Your task to perform on an android device: open the mobile data screen to see how much data has been used Image 0: 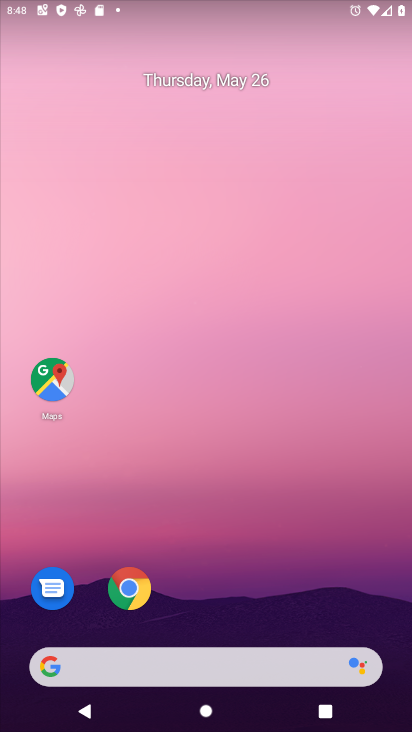
Step 0: drag from (357, 608) to (314, 70)
Your task to perform on an android device: open the mobile data screen to see how much data has been used Image 1: 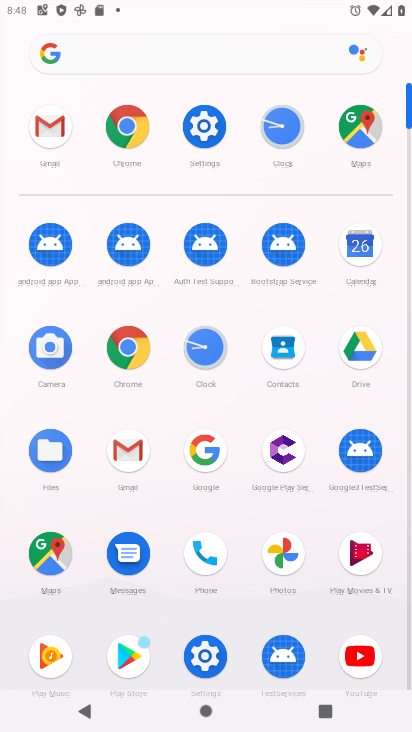
Step 1: click (208, 130)
Your task to perform on an android device: open the mobile data screen to see how much data has been used Image 2: 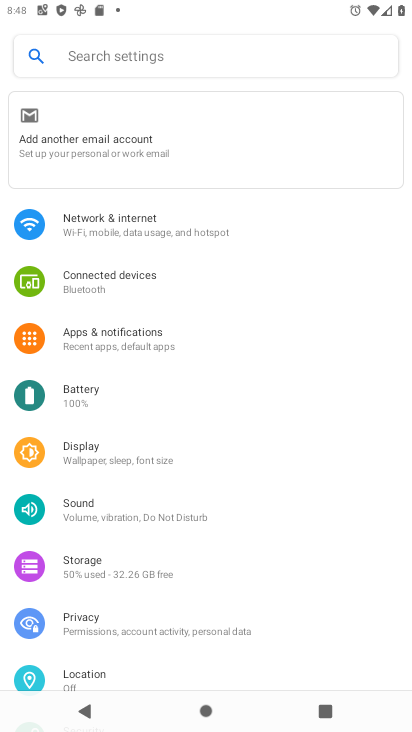
Step 2: click (139, 253)
Your task to perform on an android device: open the mobile data screen to see how much data has been used Image 3: 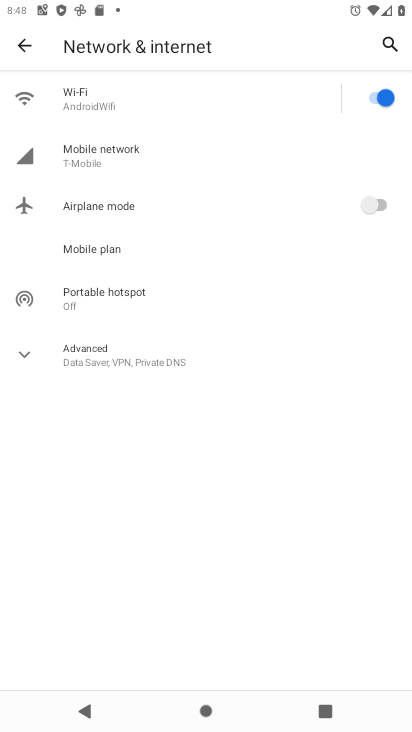
Step 3: click (150, 145)
Your task to perform on an android device: open the mobile data screen to see how much data has been used Image 4: 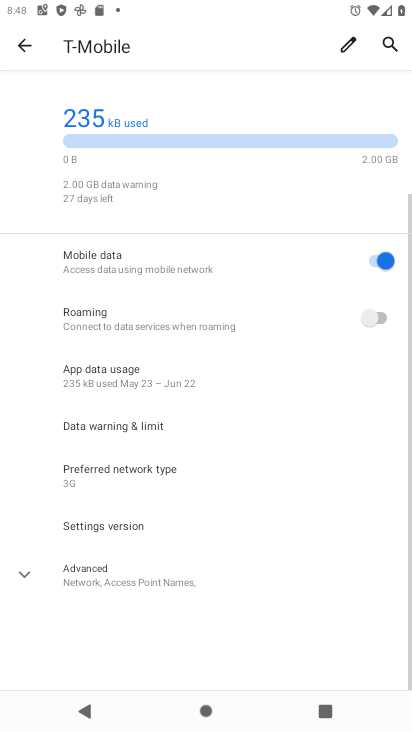
Step 4: click (154, 385)
Your task to perform on an android device: open the mobile data screen to see how much data has been used Image 5: 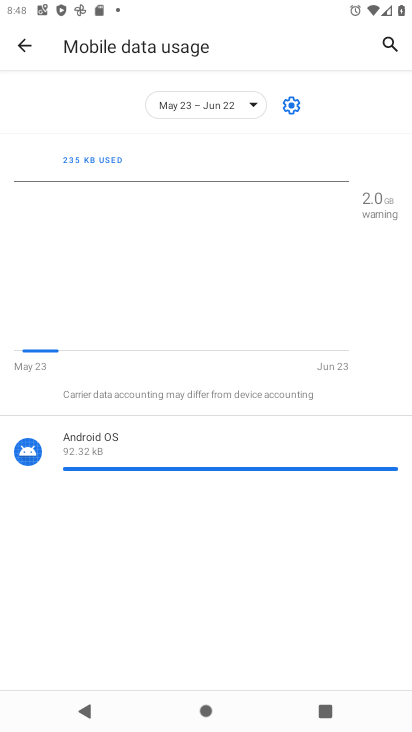
Step 5: task complete